Your task to perform on an android device: Go to eBay Image 0: 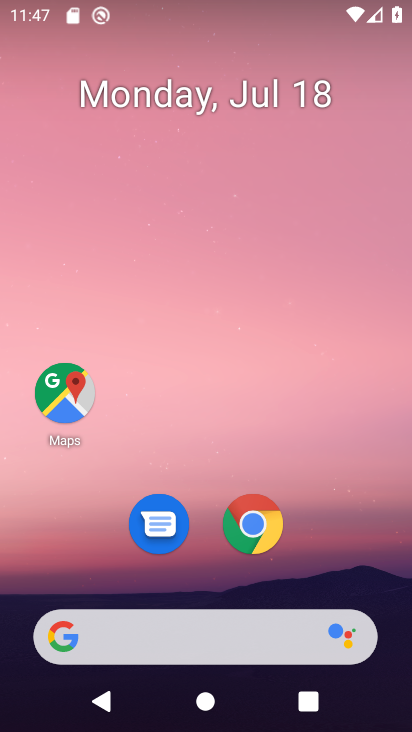
Step 0: click (231, 649)
Your task to perform on an android device: Go to eBay Image 1: 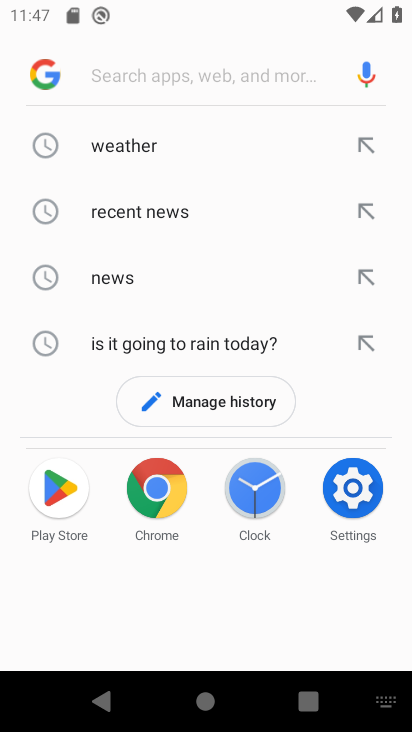
Step 1: type "ebay"
Your task to perform on an android device: Go to eBay Image 2: 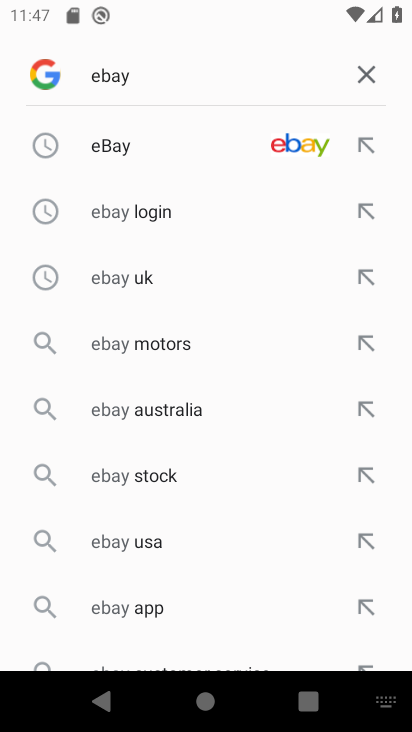
Step 2: click (302, 144)
Your task to perform on an android device: Go to eBay Image 3: 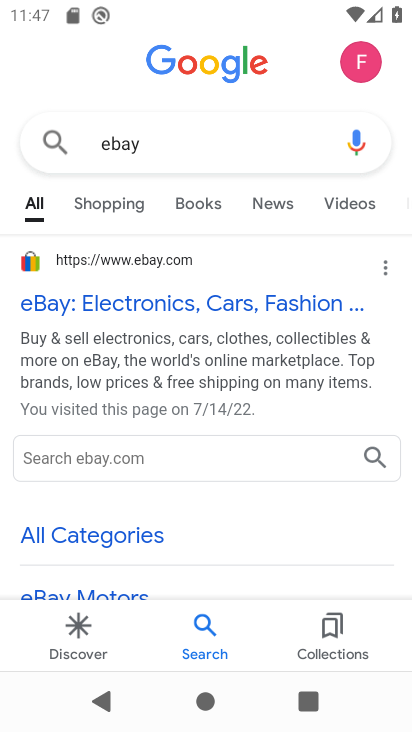
Step 3: click (59, 307)
Your task to perform on an android device: Go to eBay Image 4: 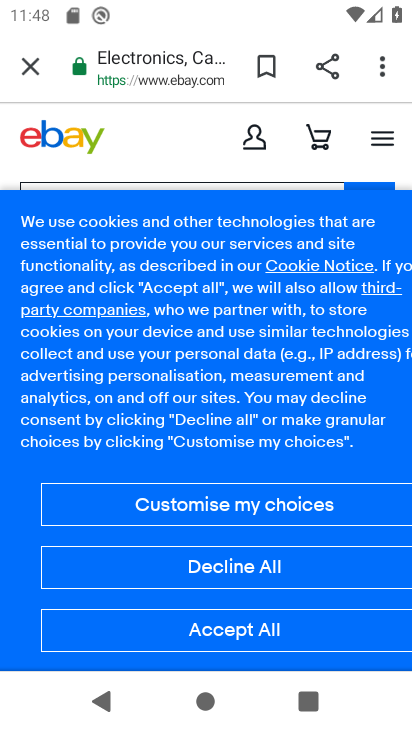
Step 4: task complete